Your task to perform on an android device: Search for Italian restaurants on Maps Image 0: 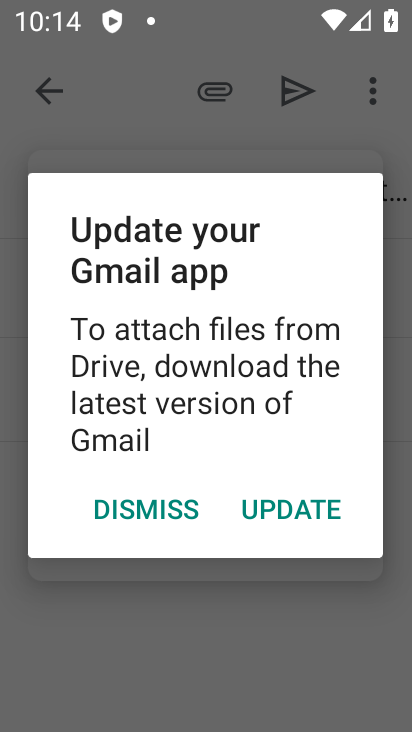
Step 0: press home button
Your task to perform on an android device: Search for Italian restaurants on Maps Image 1: 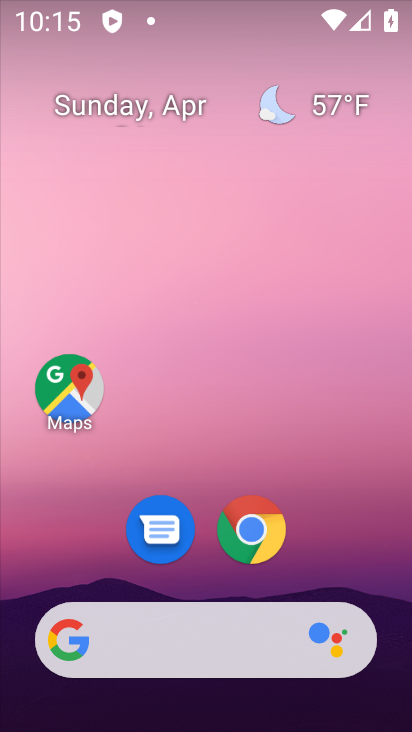
Step 1: click (81, 389)
Your task to perform on an android device: Search for Italian restaurants on Maps Image 2: 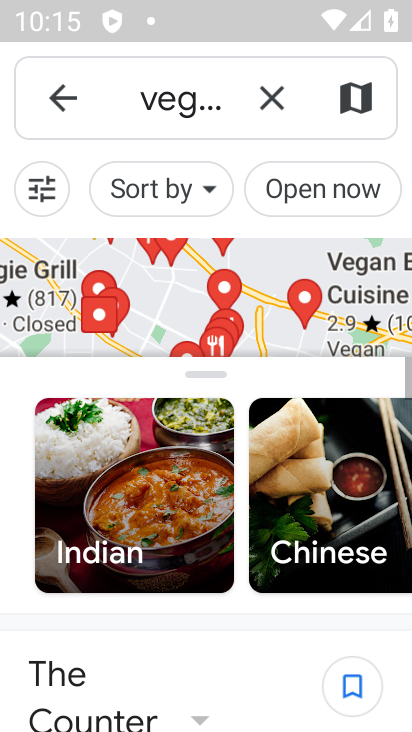
Step 2: click (263, 107)
Your task to perform on an android device: Search for Italian restaurants on Maps Image 3: 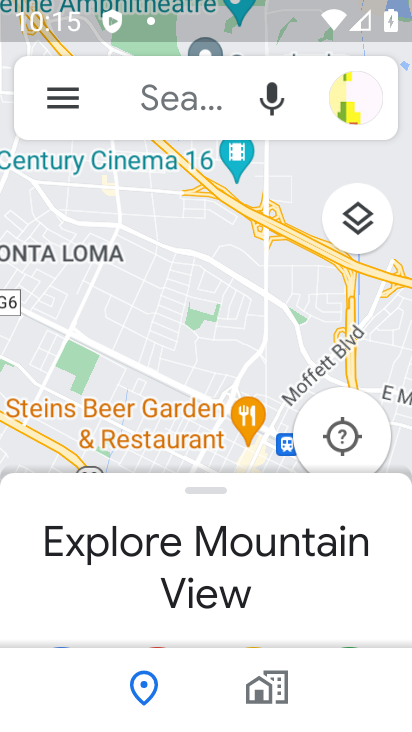
Step 3: click (166, 96)
Your task to perform on an android device: Search for Italian restaurants on Maps Image 4: 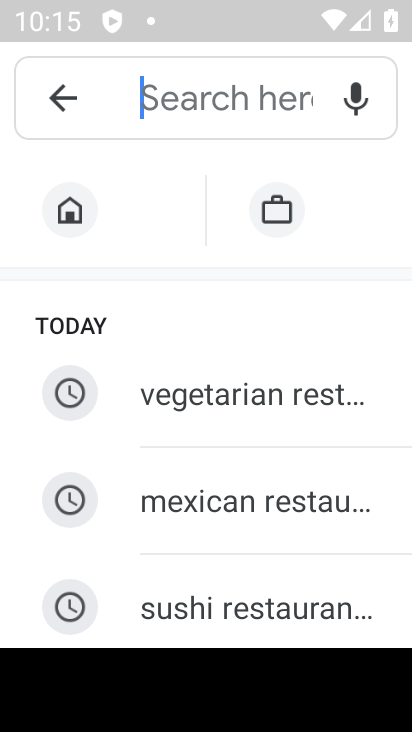
Step 4: type "italian restaurants"
Your task to perform on an android device: Search for Italian restaurants on Maps Image 5: 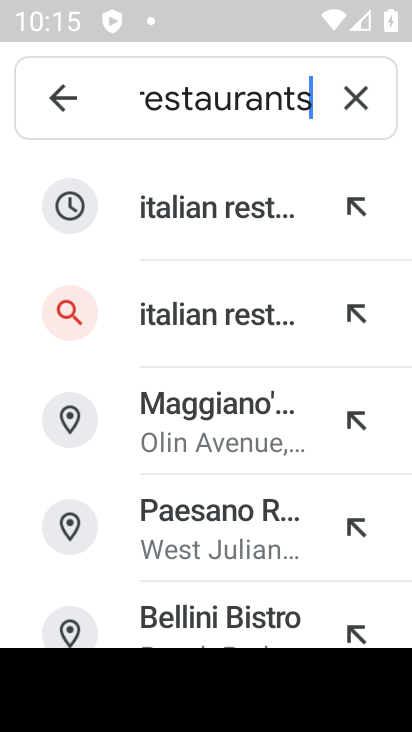
Step 5: click (226, 183)
Your task to perform on an android device: Search for Italian restaurants on Maps Image 6: 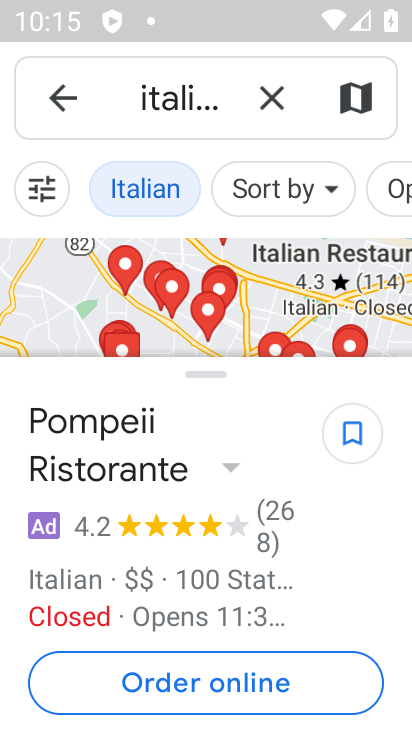
Step 6: task complete